Your task to perform on an android device: turn off javascript in the chrome app Image 0: 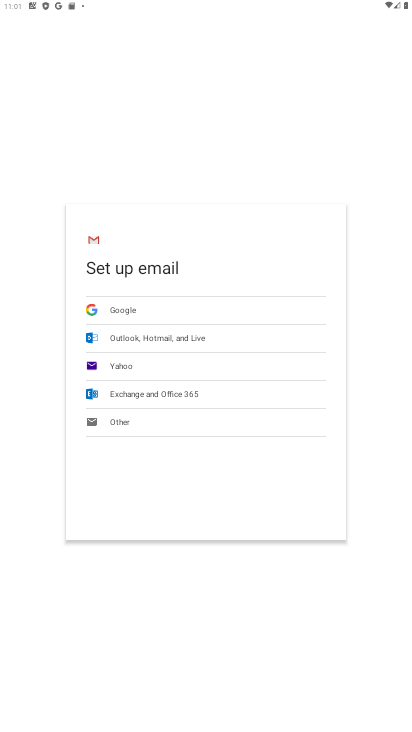
Step 0: press home button
Your task to perform on an android device: turn off javascript in the chrome app Image 1: 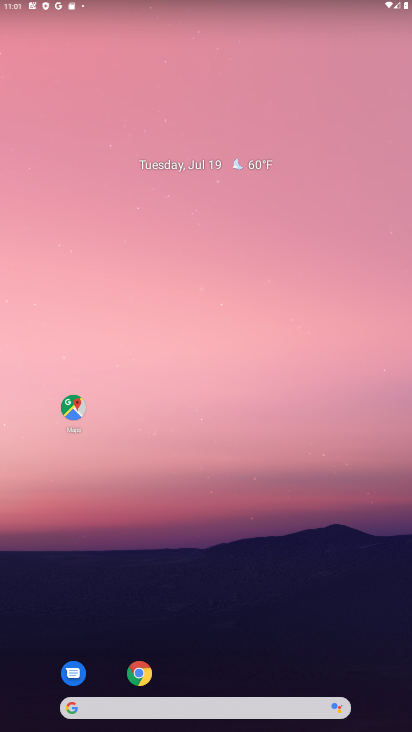
Step 1: click (139, 674)
Your task to perform on an android device: turn off javascript in the chrome app Image 2: 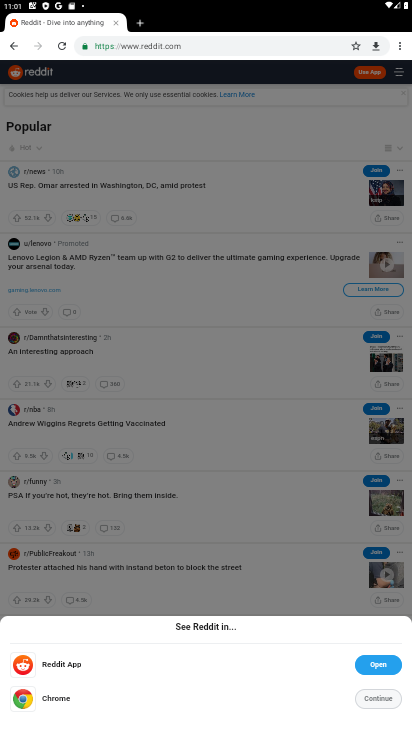
Step 2: click (399, 50)
Your task to perform on an android device: turn off javascript in the chrome app Image 3: 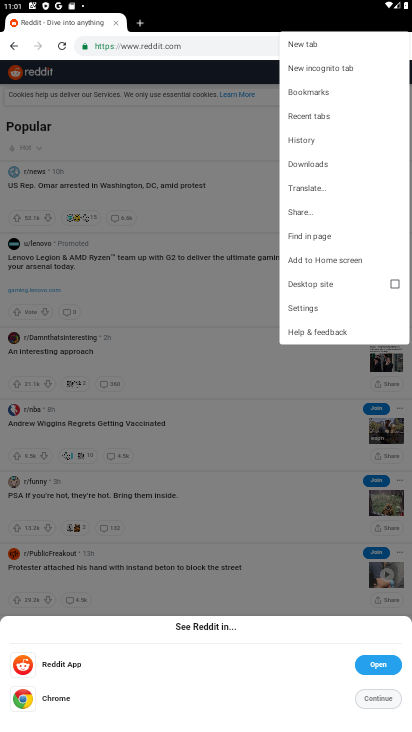
Step 3: click (301, 305)
Your task to perform on an android device: turn off javascript in the chrome app Image 4: 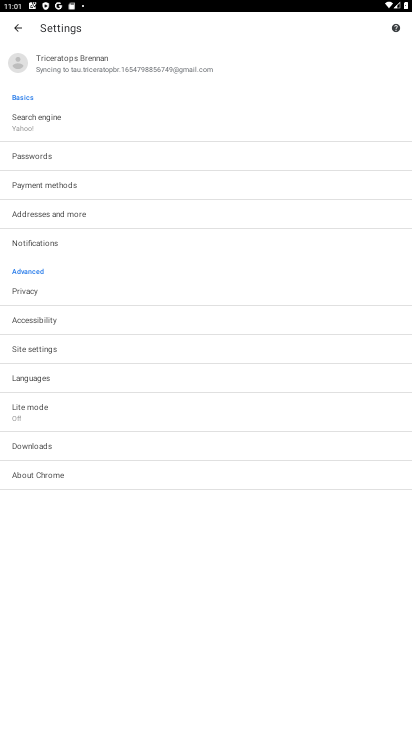
Step 4: click (34, 351)
Your task to perform on an android device: turn off javascript in the chrome app Image 5: 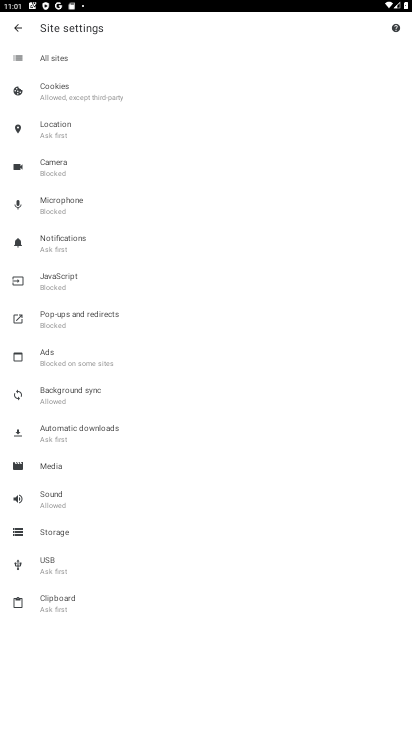
Step 5: click (49, 277)
Your task to perform on an android device: turn off javascript in the chrome app Image 6: 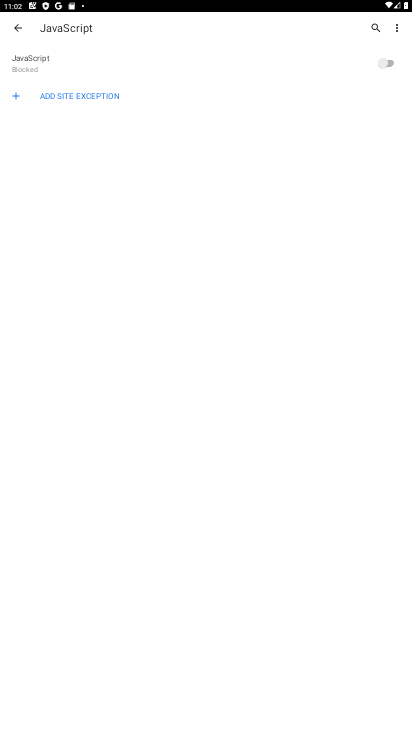
Step 6: task complete